Your task to perform on an android device: turn off location history Image 0: 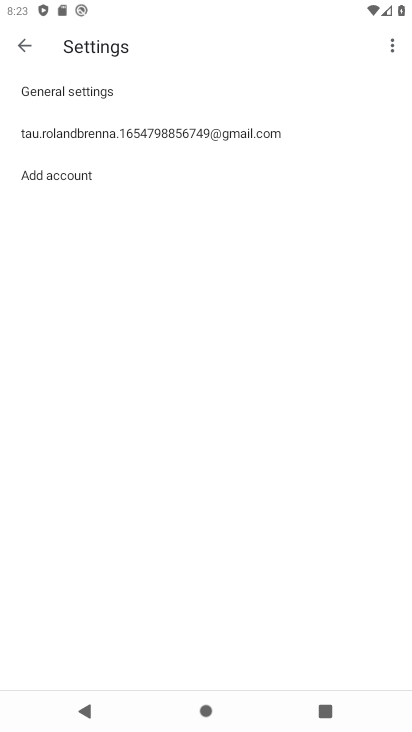
Step 0: press home button
Your task to perform on an android device: turn off location history Image 1: 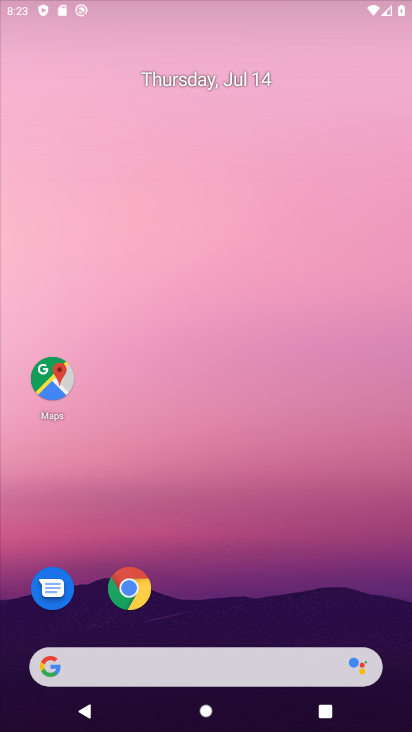
Step 1: drag from (261, 607) to (330, 84)
Your task to perform on an android device: turn off location history Image 2: 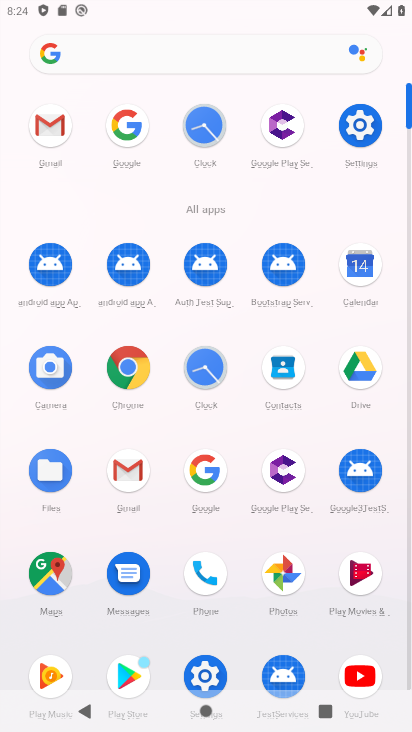
Step 2: click (365, 129)
Your task to perform on an android device: turn off location history Image 3: 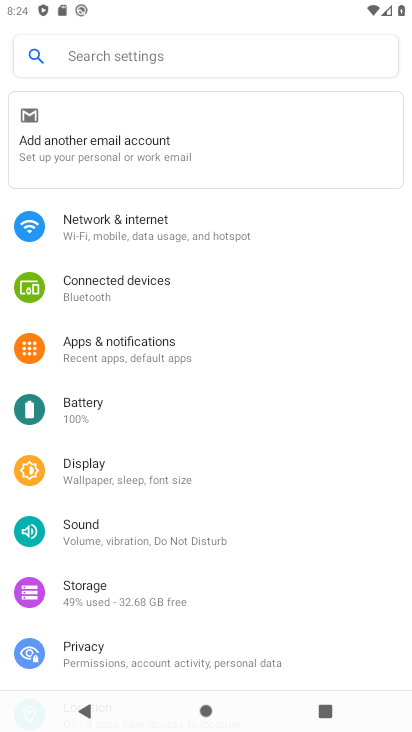
Step 3: drag from (131, 644) to (177, 269)
Your task to perform on an android device: turn off location history Image 4: 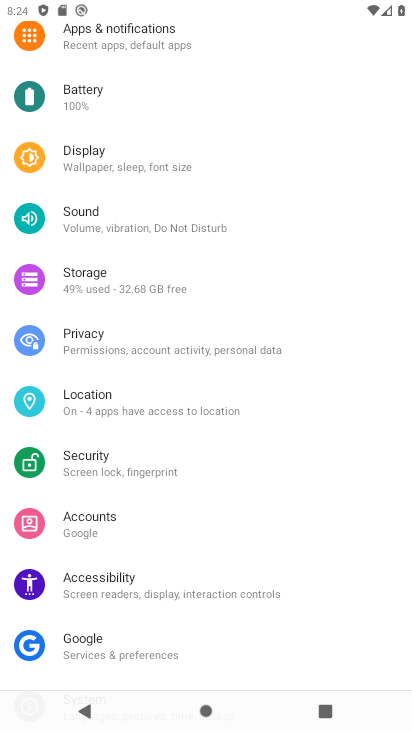
Step 4: click (97, 400)
Your task to perform on an android device: turn off location history Image 5: 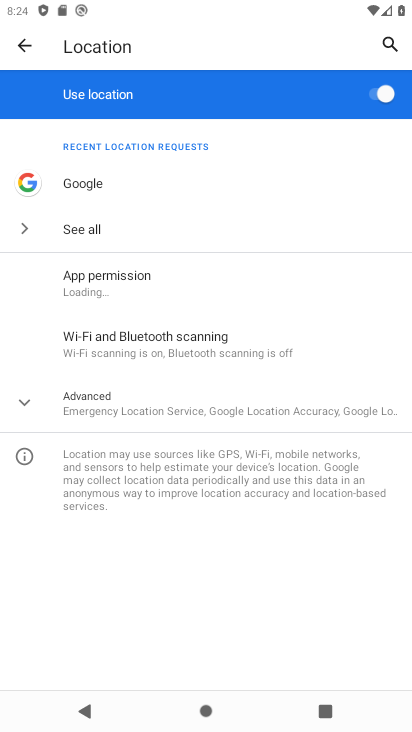
Step 5: click (94, 403)
Your task to perform on an android device: turn off location history Image 6: 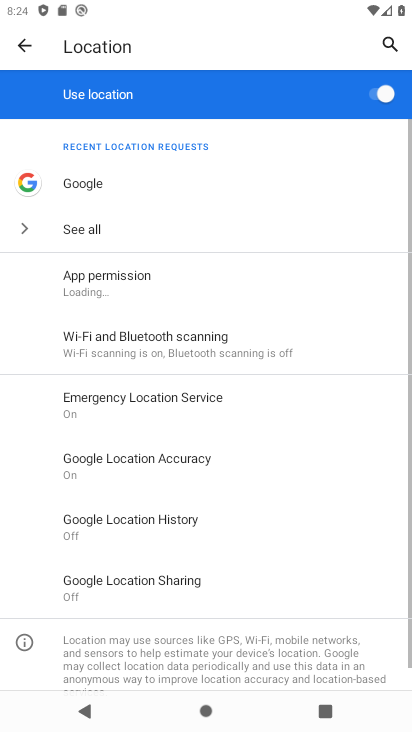
Step 6: click (184, 515)
Your task to perform on an android device: turn off location history Image 7: 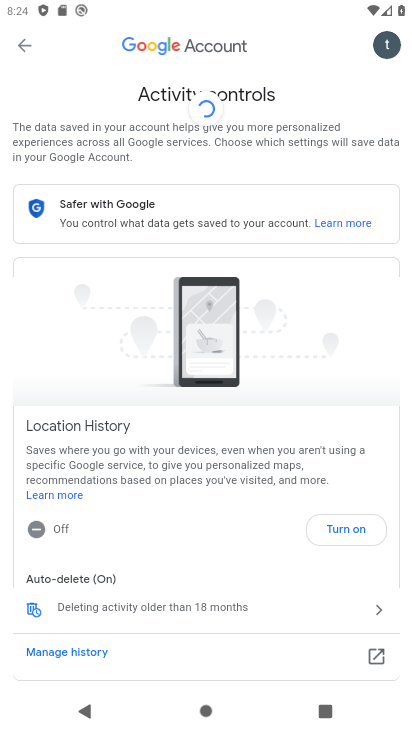
Step 7: task complete